Your task to perform on an android device: Go to eBay Image 0: 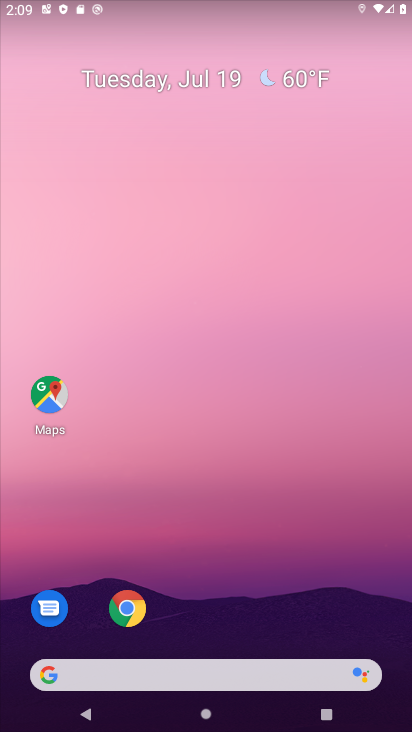
Step 0: drag from (258, 533) to (262, 0)
Your task to perform on an android device: Go to eBay Image 1: 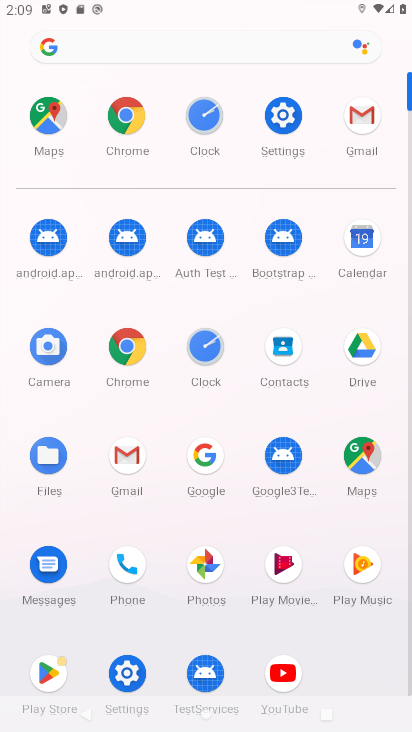
Step 1: click (109, 123)
Your task to perform on an android device: Go to eBay Image 2: 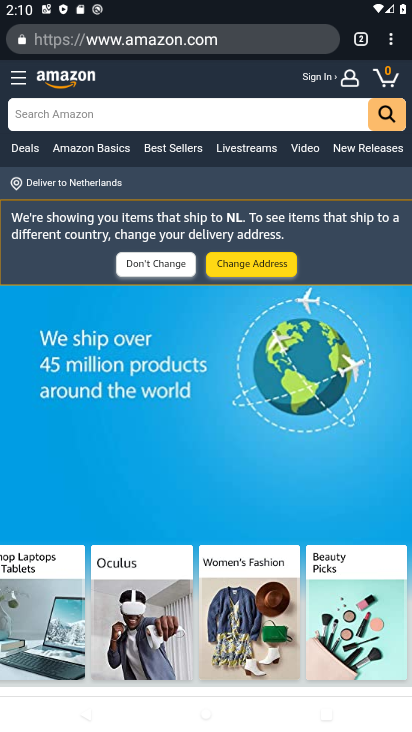
Step 2: press back button
Your task to perform on an android device: Go to eBay Image 3: 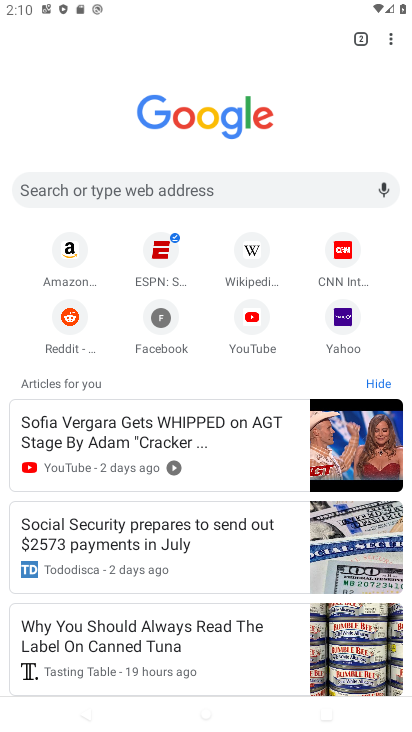
Step 3: click (85, 192)
Your task to perform on an android device: Go to eBay Image 4: 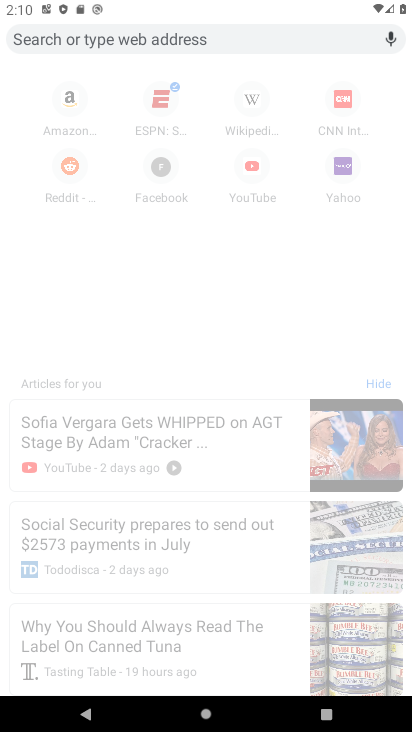
Step 4: type "eBay"
Your task to perform on an android device: Go to eBay Image 5: 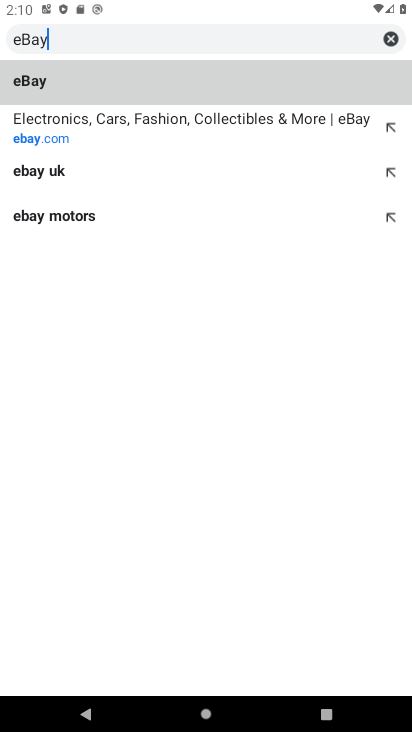
Step 5: press enter
Your task to perform on an android device: Go to eBay Image 6: 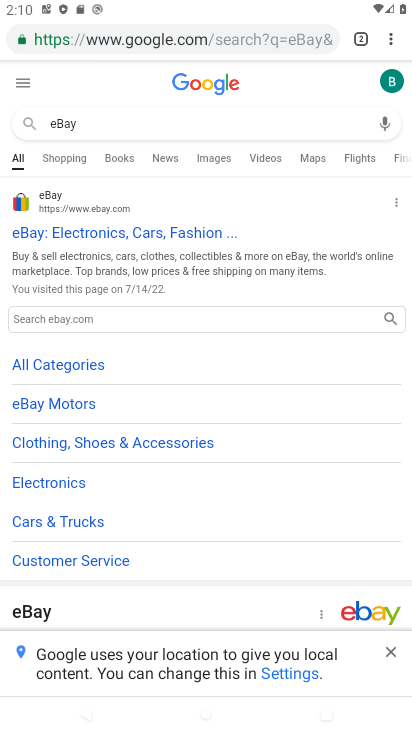
Step 6: click (25, 239)
Your task to perform on an android device: Go to eBay Image 7: 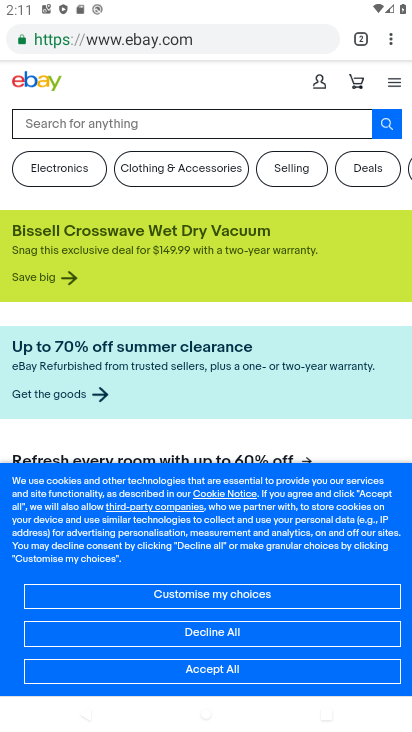
Step 7: task complete